Your task to perform on an android device: see tabs open on other devices in the chrome app Image 0: 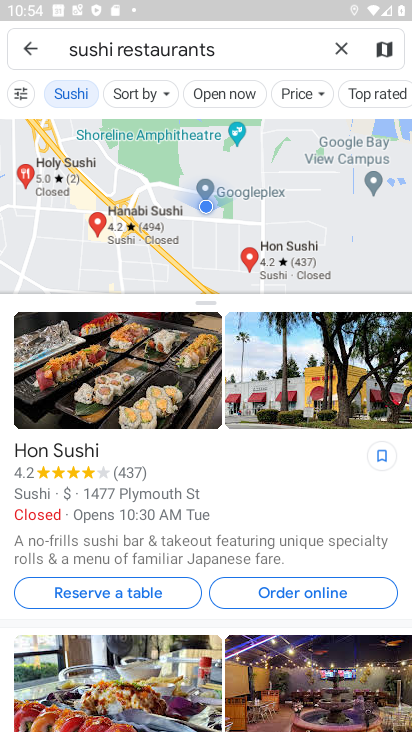
Step 0: press home button
Your task to perform on an android device: see tabs open on other devices in the chrome app Image 1: 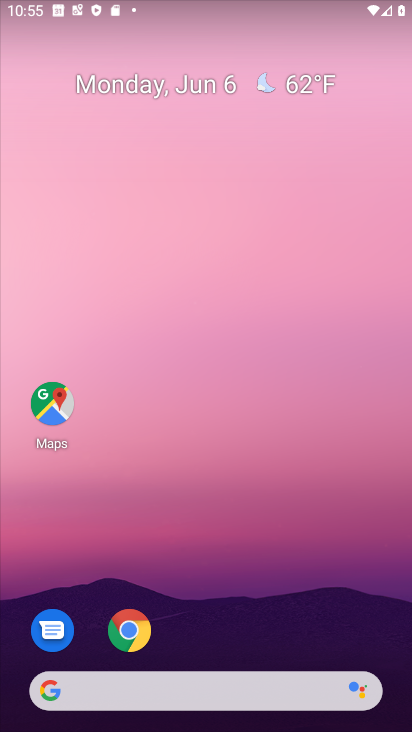
Step 1: drag from (342, 630) to (319, 120)
Your task to perform on an android device: see tabs open on other devices in the chrome app Image 2: 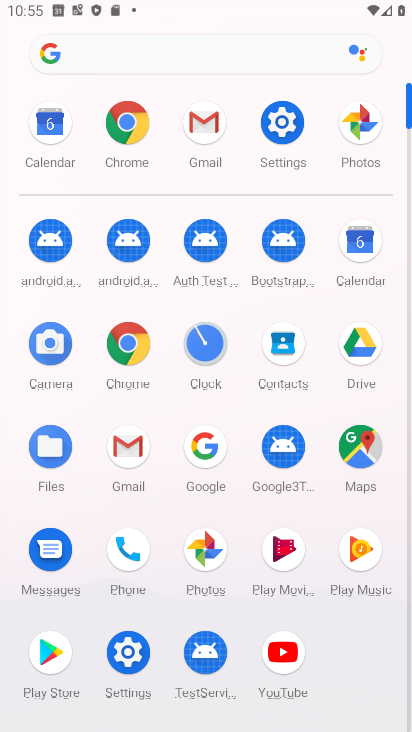
Step 2: click (128, 356)
Your task to perform on an android device: see tabs open on other devices in the chrome app Image 3: 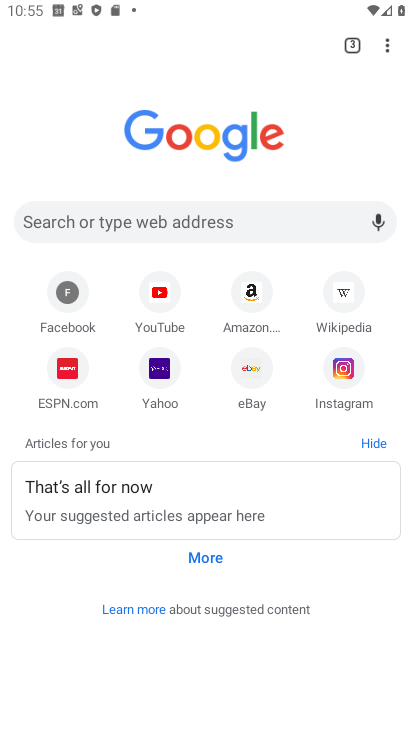
Step 3: click (347, 55)
Your task to perform on an android device: see tabs open on other devices in the chrome app Image 4: 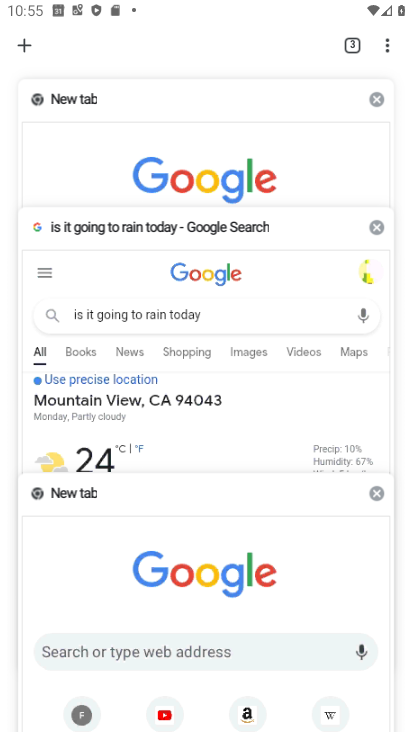
Step 4: click (11, 47)
Your task to perform on an android device: see tabs open on other devices in the chrome app Image 5: 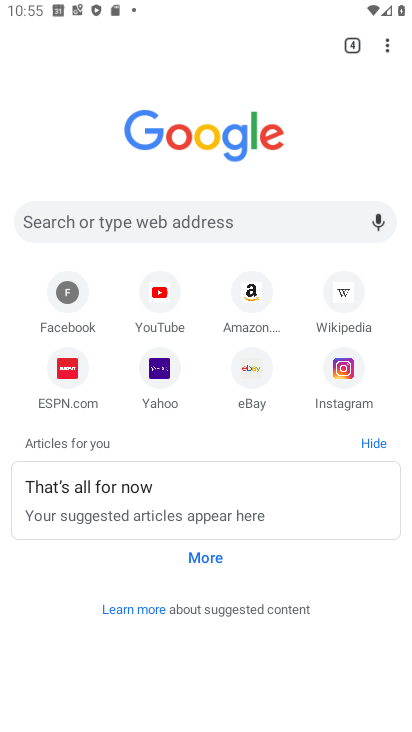
Step 5: click (355, 48)
Your task to perform on an android device: see tabs open on other devices in the chrome app Image 6: 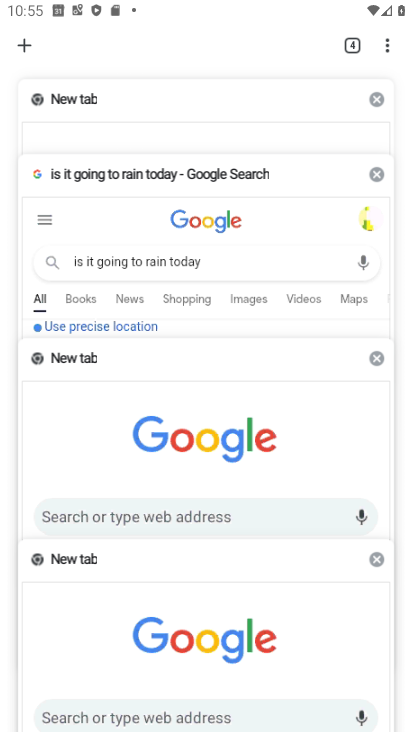
Step 6: task complete